Your task to perform on an android device: check out phone information Image 0: 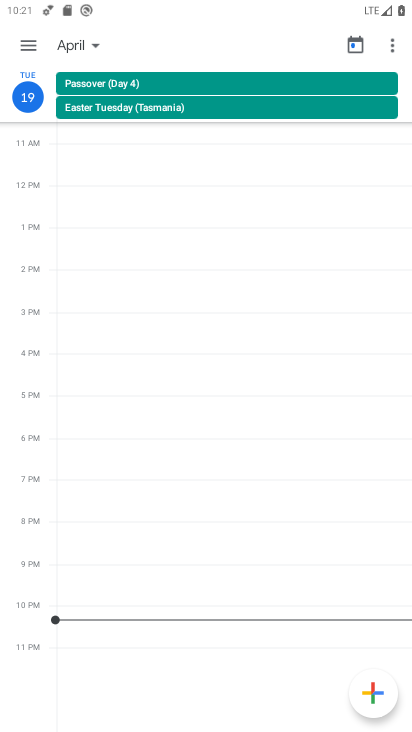
Step 0: press home button
Your task to perform on an android device: check out phone information Image 1: 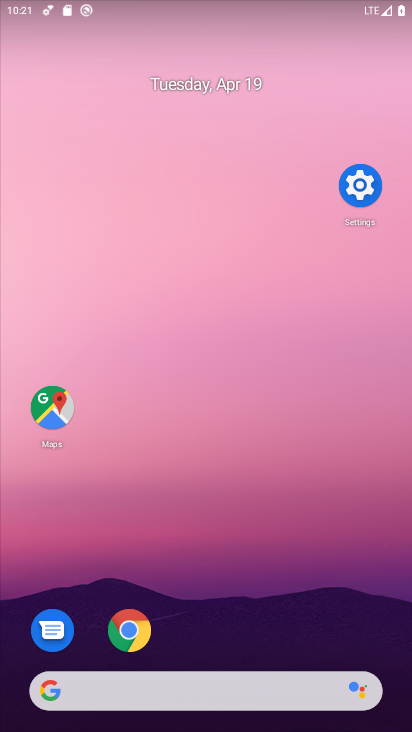
Step 1: drag from (248, 640) to (406, 332)
Your task to perform on an android device: check out phone information Image 2: 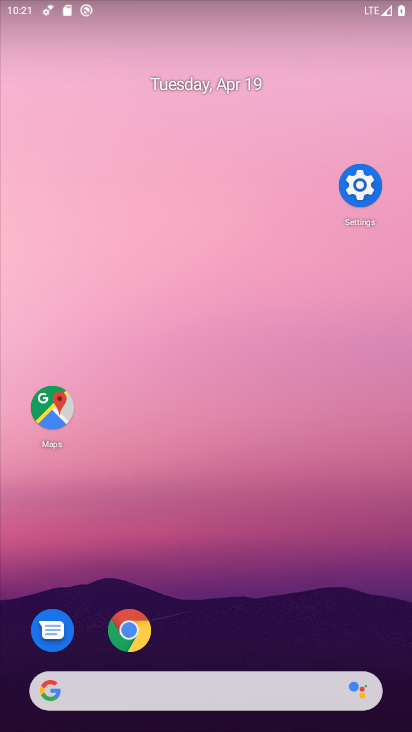
Step 2: drag from (303, 452) to (362, 229)
Your task to perform on an android device: check out phone information Image 3: 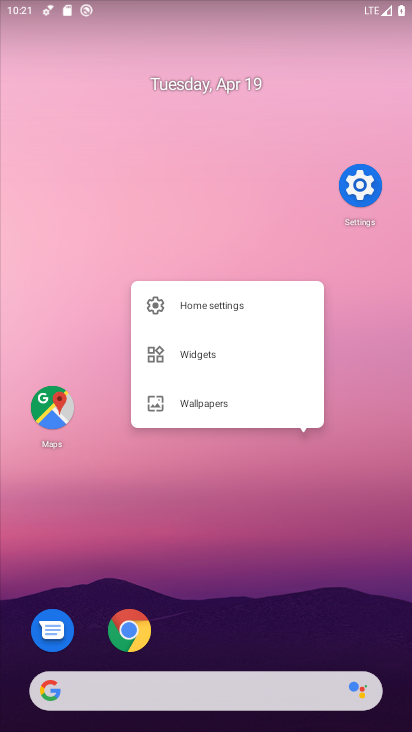
Step 3: click (254, 636)
Your task to perform on an android device: check out phone information Image 4: 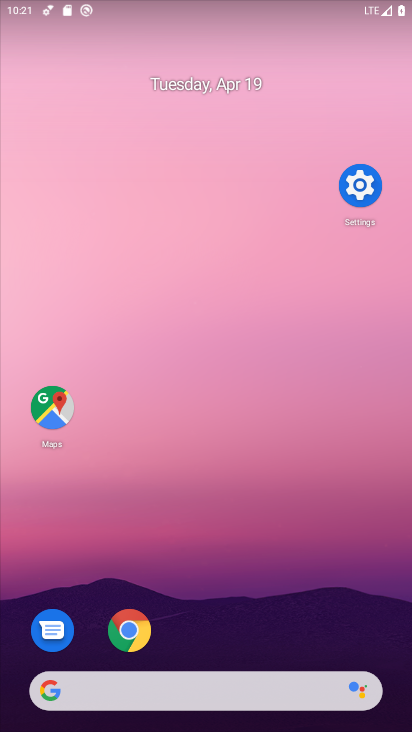
Step 4: drag from (235, 663) to (308, 245)
Your task to perform on an android device: check out phone information Image 5: 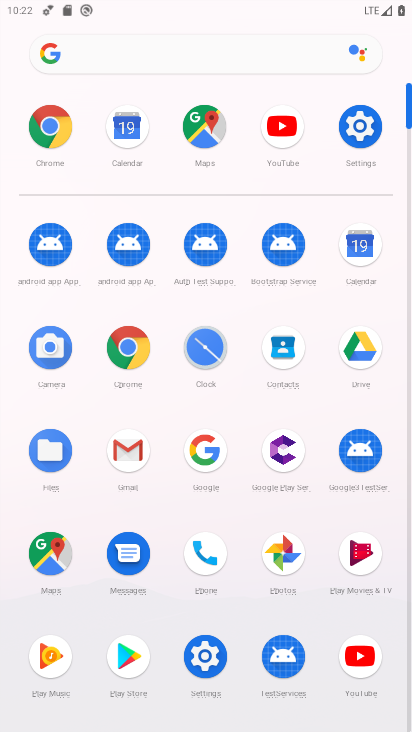
Step 5: click (199, 668)
Your task to perform on an android device: check out phone information Image 6: 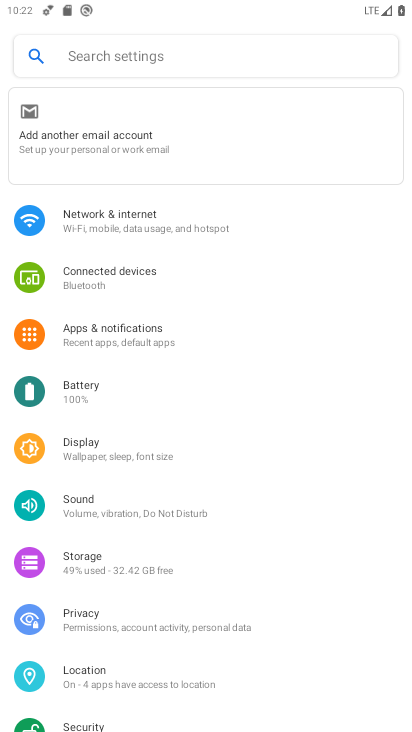
Step 6: drag from (179, 598) to (188, 277)
Your task to perform on an android device: check out phone information Image 7: 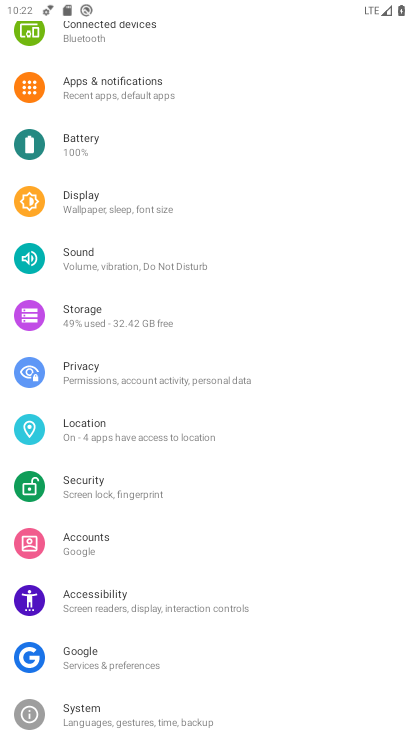
Step 7: drag from (186, 560) to (200, 202)
Your task to perform on an android device: check out phone information Image 8: 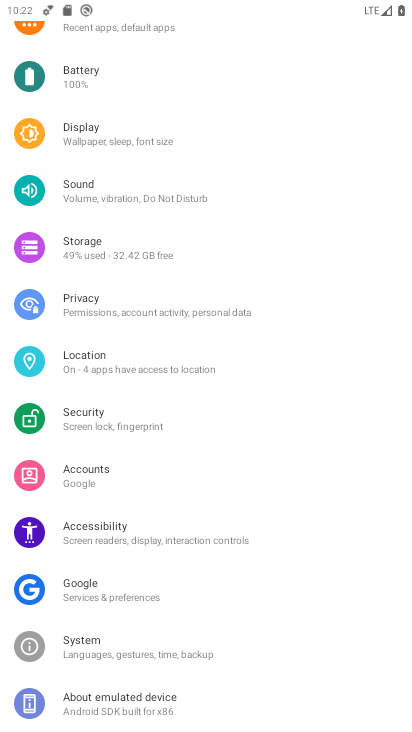
Step 8: drag from (177, 622) to (175, 161)
Your task to perform on an android device: check out phone information Image 9: 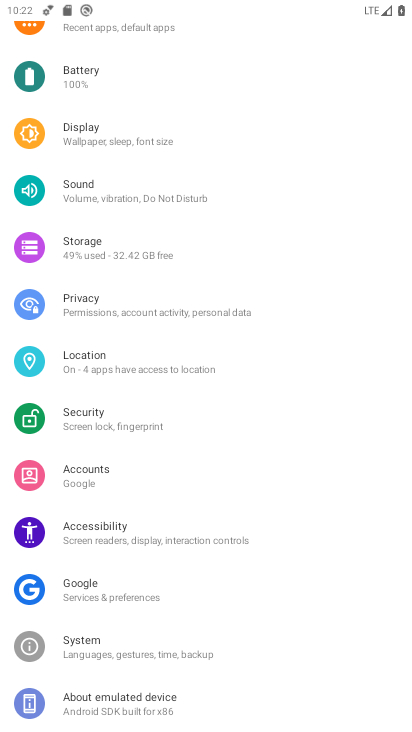
Step 9: click (181, 701)
Your task to perform on an android device: check out phone information Image 10: 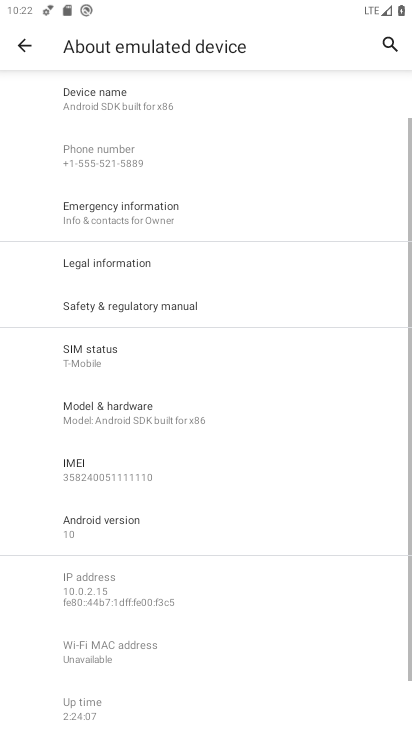
Step 10: task complete